Your task to perform on an android device: uninstall "Yahoo Mail" Image 0: 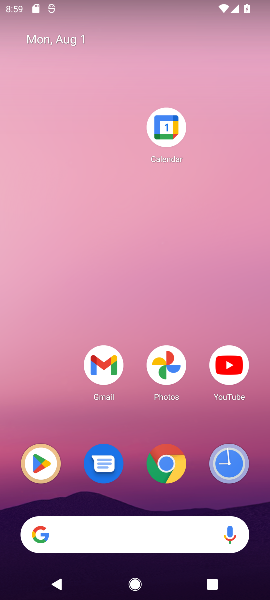
Step 0: click (58, 472)
Your task to perform on an android device: uninstall "Yahoo Mail" Image 1: 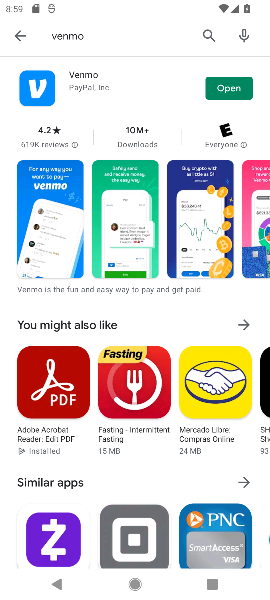
Step 1: click (212, 47)
Your task to perform on an android device: uninstall "Yahoo Mail" Image 2: 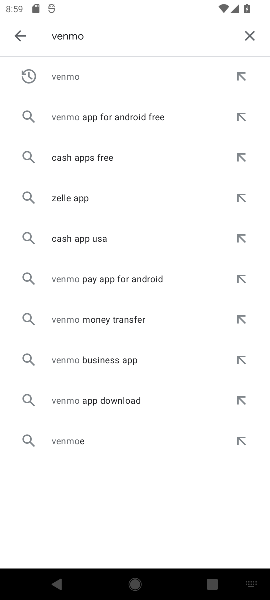
Step 2: click (251, 29)
Your task to perform on an android device: uninstall "Yahoo Mail" Image 3: 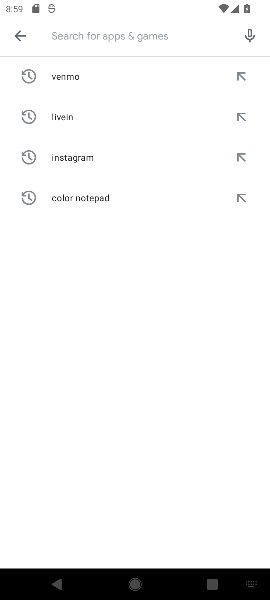
Step 3: type "yahoomail.com"
Your task to perform on an android device: uninstall "Yahoo Mail" Image 4: 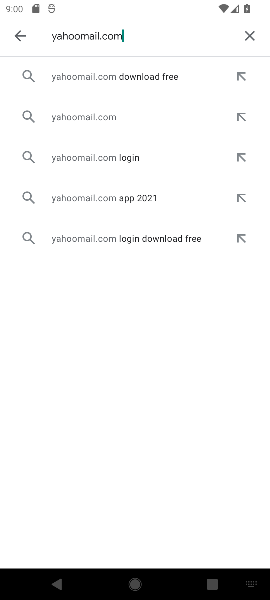
Step 4: click (112, 70)
Your task to perform on an android device: uninstall "Yahoo Mail" Image 5: 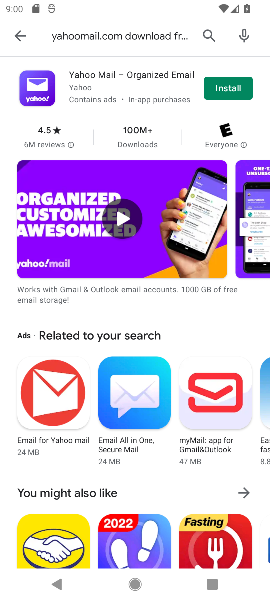
Step 5: click (217, 94)
Your task to perform on an android device: uninstall "Yahoo Mail" Image 6: 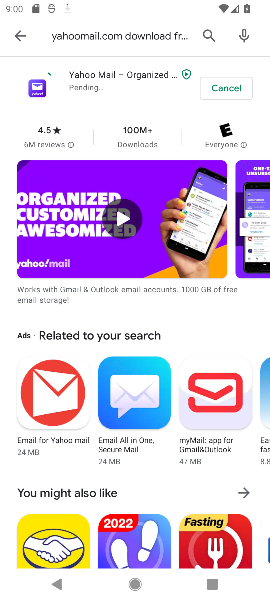
Step 6: task complete